Your task to perform on an android device: Open the calendar app, open the side menu, and click the "Day" option Image 0: 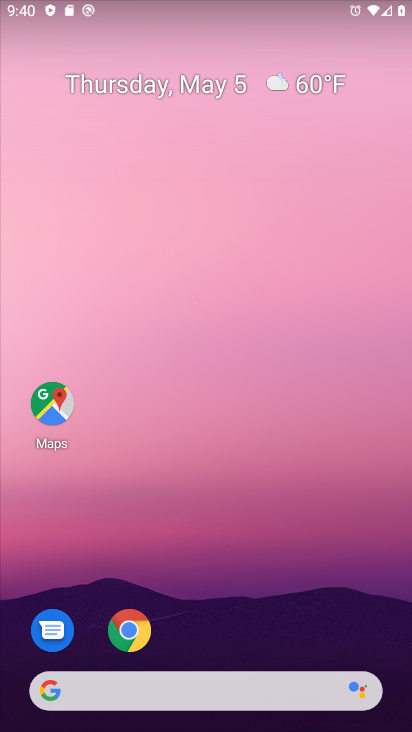
Step 0: drag from (227, 590) to (214, 136)
Your task to perform on an android device: Open the calendar app, open the side menu, and click the "Day" option Image 1: 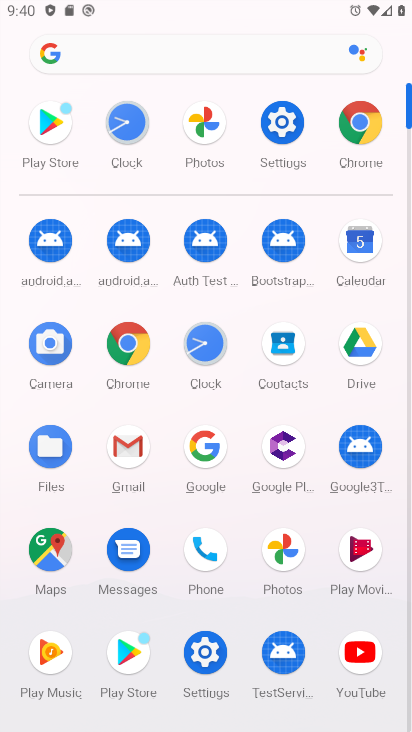
Step 1: click (370, 265)
Your task to perform on an android device: Open the calendar app, open the side menu, and click the "Day" option Image 2: 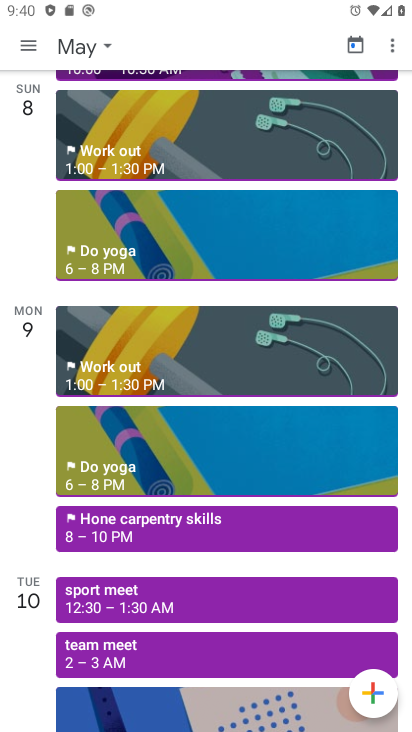
Step 2: click (29, 45)
Your task to perform on an android device: Open the calendar app, open the side menu, and click the "Day" option Image 3: 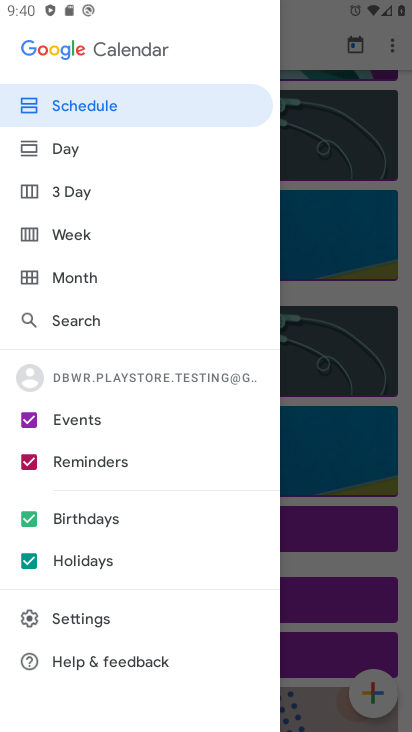
Step 3: click (68, 154)
Your task to perform on an android device: Open the calendar app, open the side menu, and click the "Day" option Image 4: 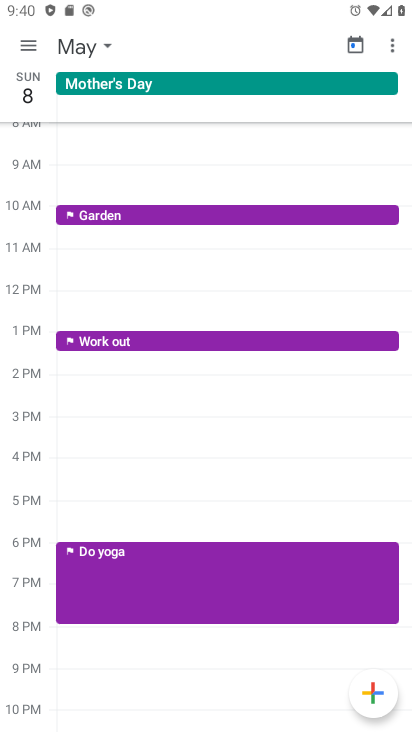
Step 4: task complete